Your task to perform on an android device: Open display settings Image 0: 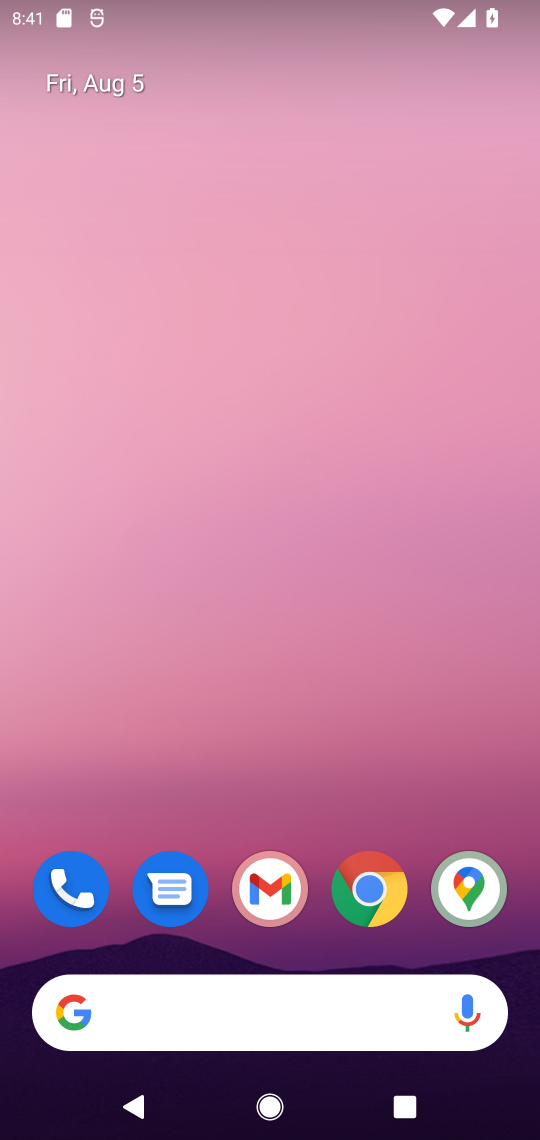
Step 0: drag from (127, 856) to (294, 118)
Your task to perform on an android device: Open display settings Image 1: 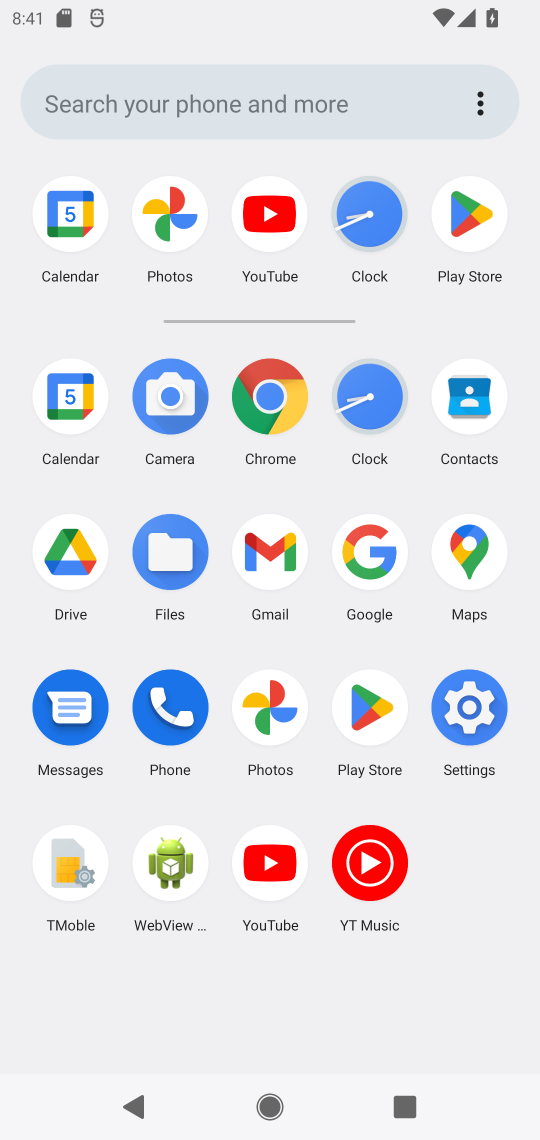
Step 1: click (459, 695)
Your task to perform on an android device: Open display settings Image 2: 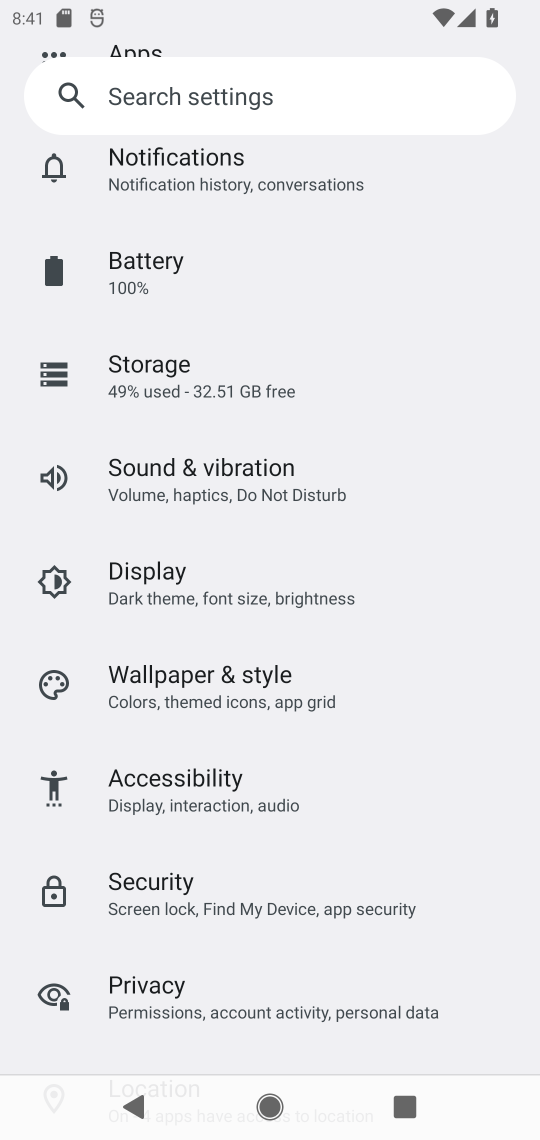
Step 2: drag from (157, 987) to (186, 799)
Your task to perform on an android device: Open display settings Image 3: 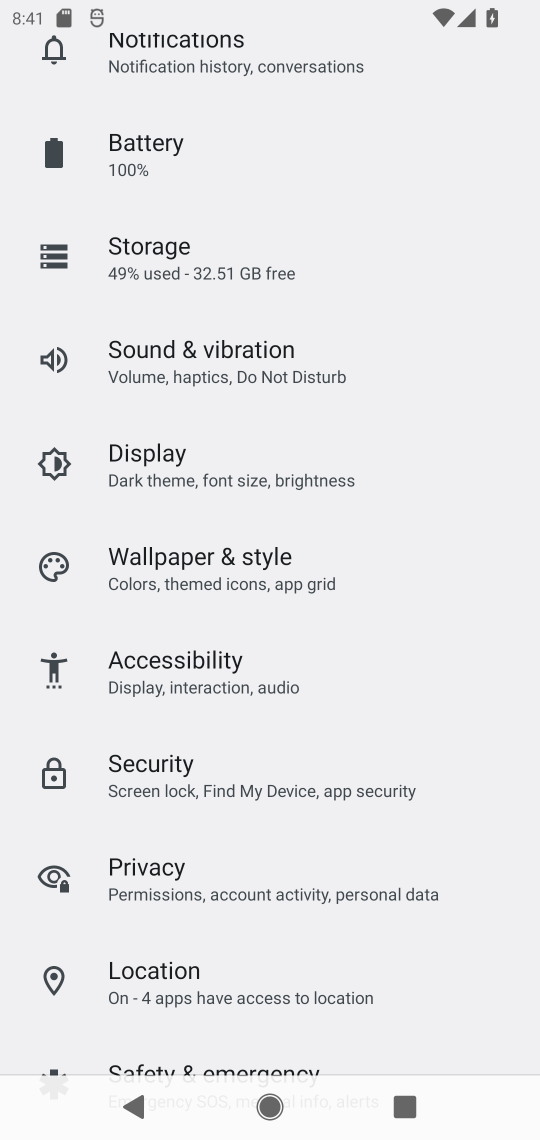
Step 3: click (178, 439)
Your task to perform on an android device: Open display settings Image 4: 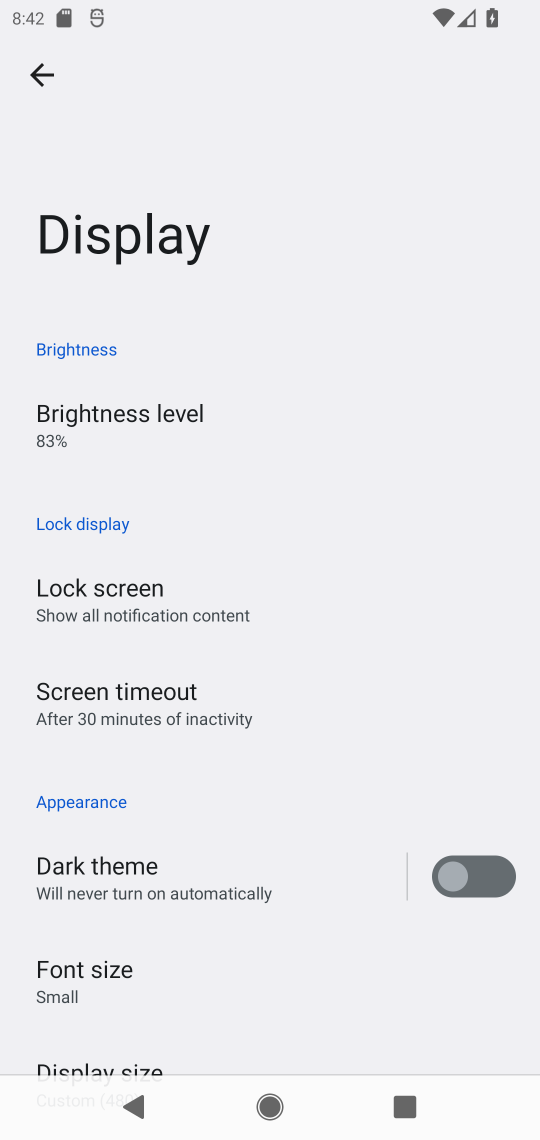
Step 4: task complete